Your task to perform on an android device: check battery use Image 0: 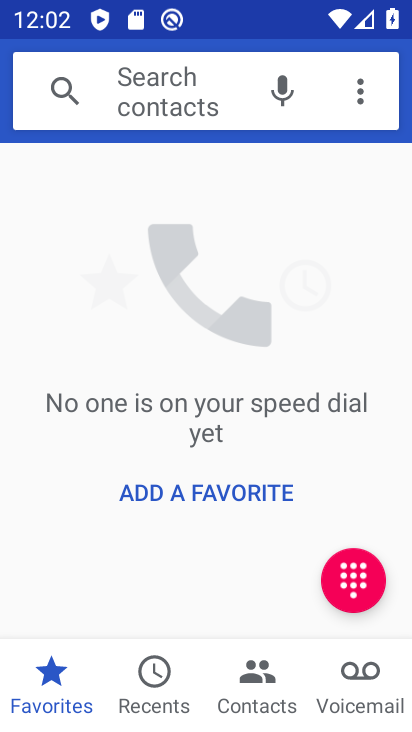
Step 0: press home button
Your task to perform on an android device: check battery use Image 1: 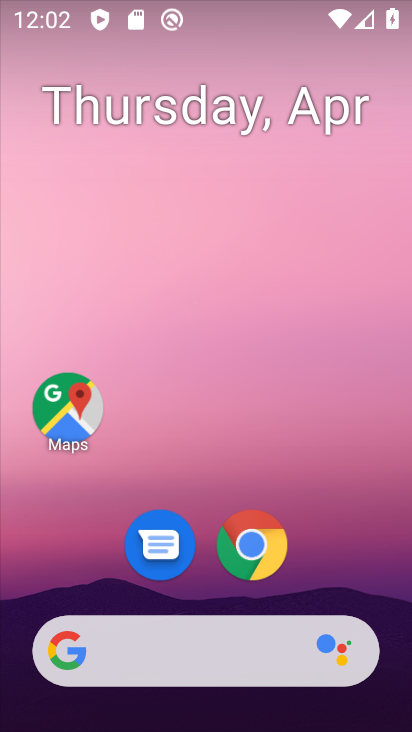
Step 1: drag from (352, 577) to (300, 140)
Your task to perform on an android device: check battery use Image 2: 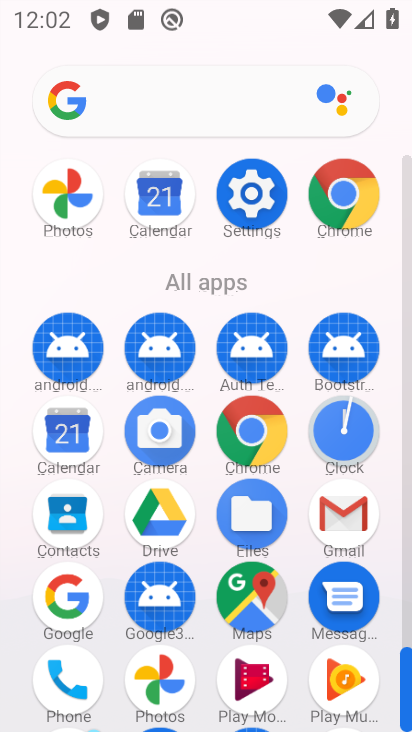
Step 2: click (252, 183)
Your task to perform on an android device: check battery use Image 3: 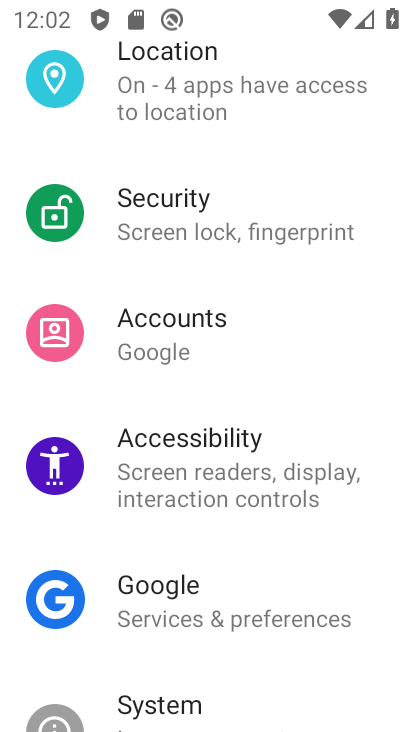
Step 3: drag from (266, 533) to (255, 117)
Your task to perform on an android device: check battery use Image 4: 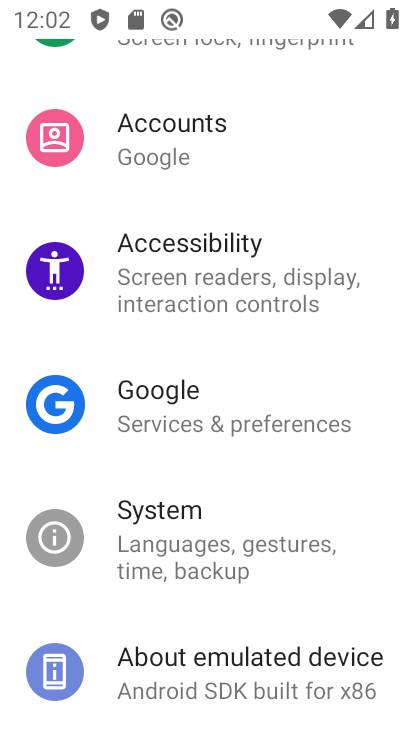
Step 4: drag from (206, 526) to (265, 137)
Your task to perform on an android device: check battery use Image 5: 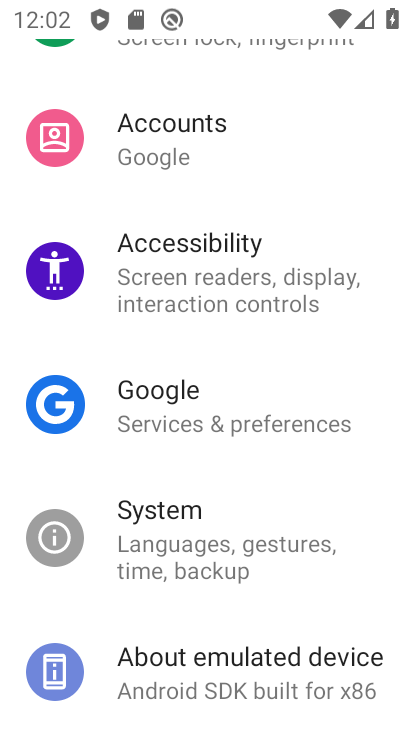
Step 5: drag from (255, 151) to (219, 562)
Your task to perform on an android device: check battery use Image 6: 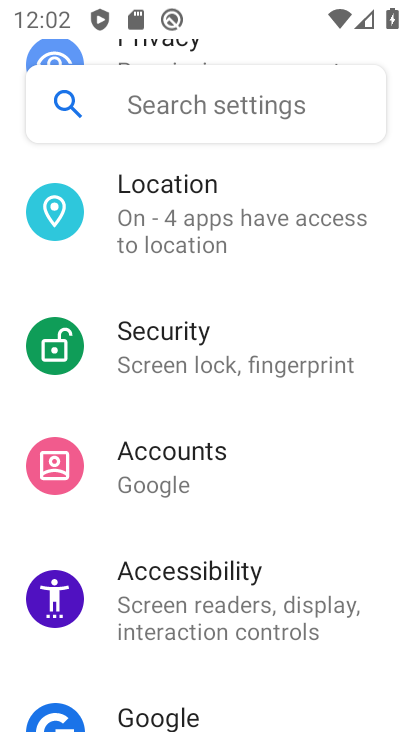
Step 6: drag from (207, 278) to (225, 708)
Your task to perform on an android device: check battery use Image 7: 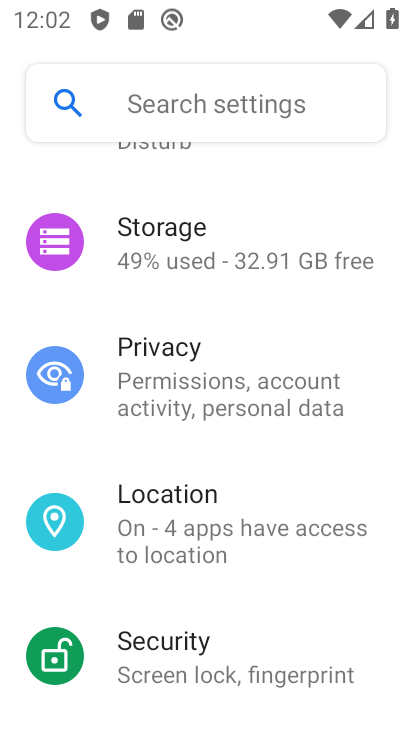
Step 7: drag from (221, 248) to (267, 627)
Your task to perform on an android device: check battery use Image 8: 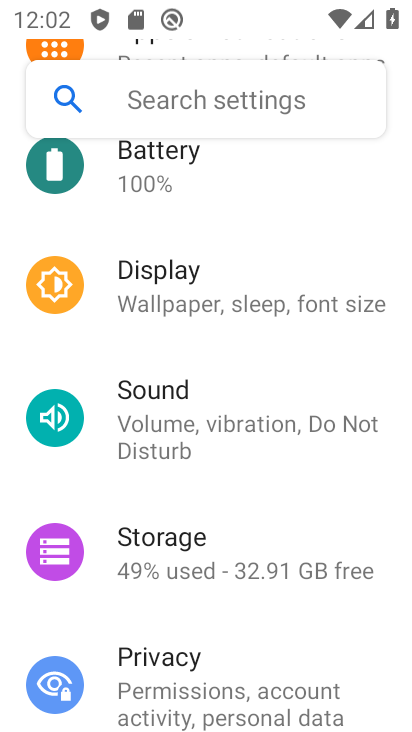
Step 8: click (177, 177)
Your task to perform on an android device: check battery use Image 9: 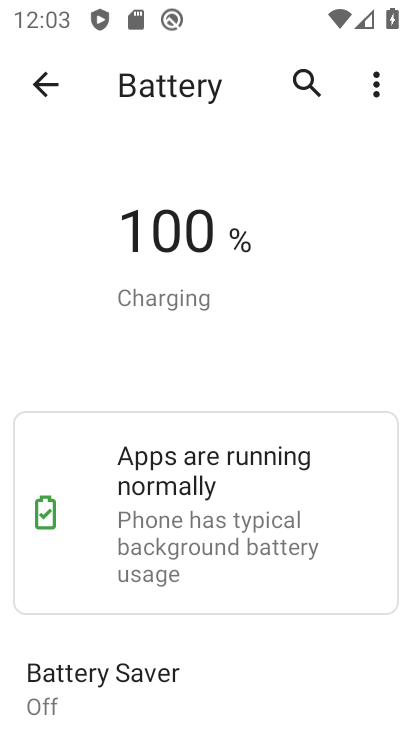
Step 9: click (378, 81)
Your task to perform on an android device: check battery use Image 10: 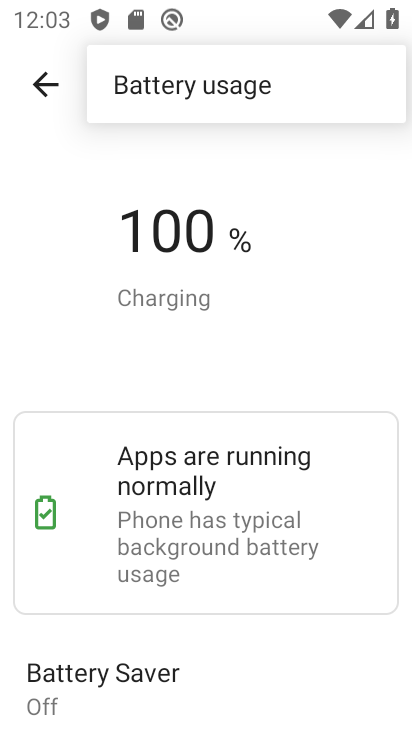
Step 10: click (266, 86)
Your task to perform on an android device: check battery use Image 11: 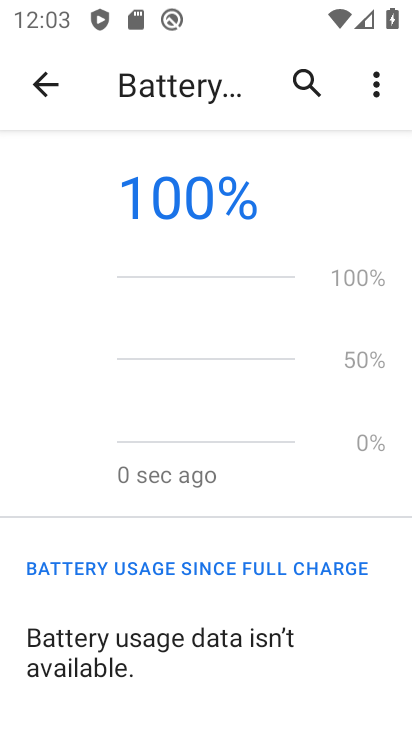
Step 11: task complete